Your task to perform on an android device: turn vacation reply on in the gmail app Image 0: 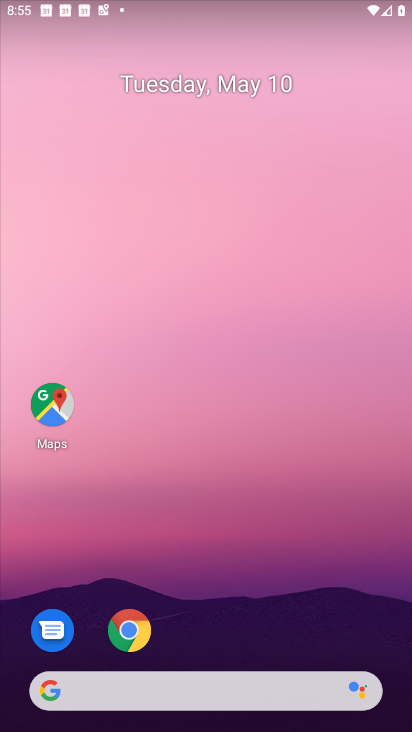
Step 0: drag from (223, 726) to (359, 54)
Your task to perform on an android device: turn vacation reply on in the gmail app Image 1: 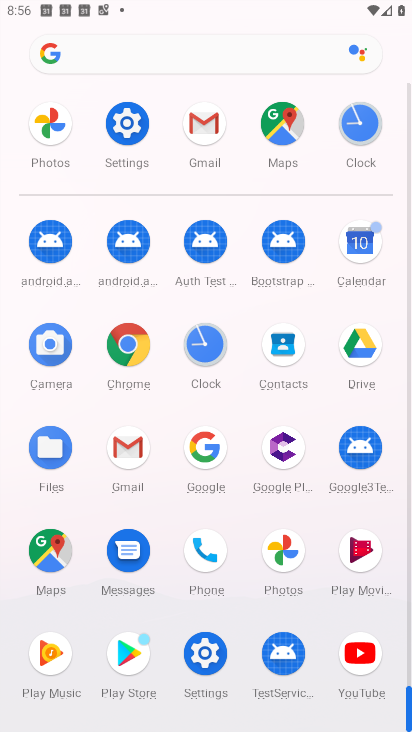
Step 1: click (201, 120)
Your task to perform on an android device: turn vacation reply on in the gmail app Image 2: 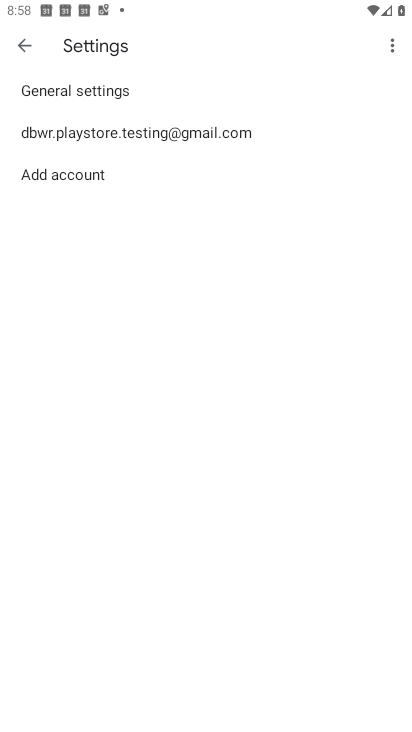
Step 2: click (42, 129)
Your task to perform on an android device: turn vacation reply on in the gmail app Image 3: 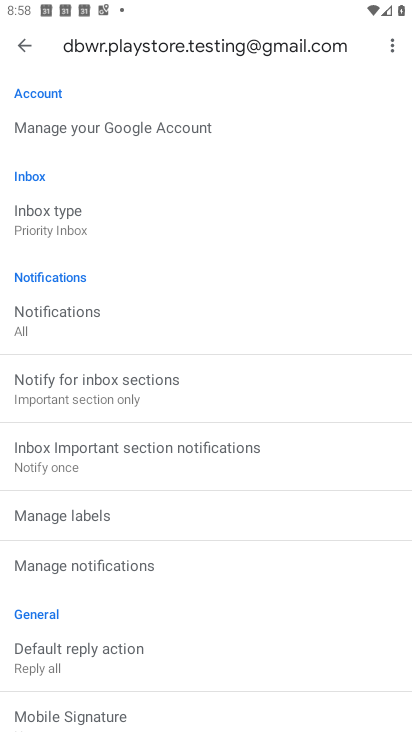
Step 3: drag from (194, 670) to (236, 41)
Your task to perform on an android device: turn vacation reply on in the gmail app Image 4: 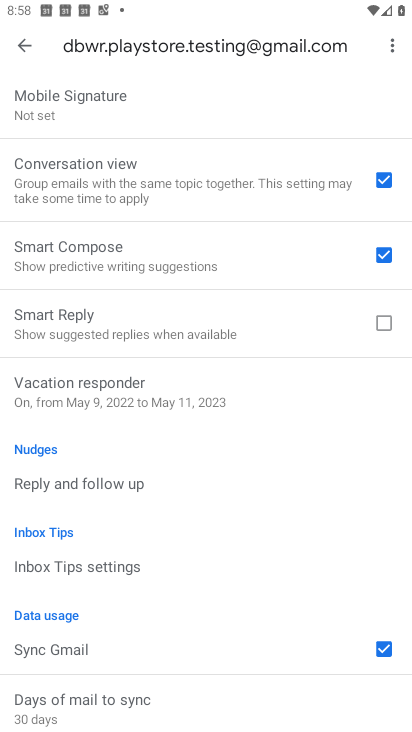
Step 4: click (216, 400)
Your task to perform on an android device: turn vacation reply on in the gmail app Image 5: 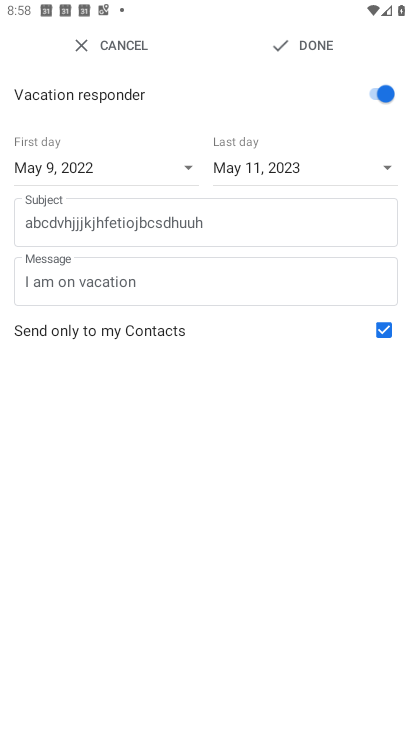
Step 5: click (280, 37)
Your task to perform on an android device: turn vacation reply on in the gmail app Image 6: 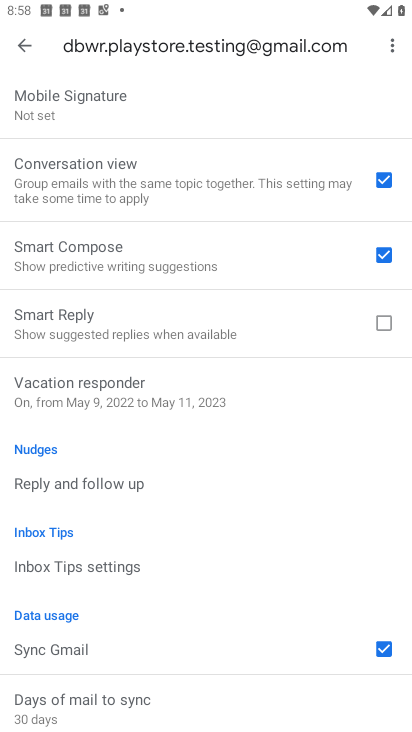
Step 6: task complete